Your task to perform on an android device: manage bookmarks in the chrome app Image 0: 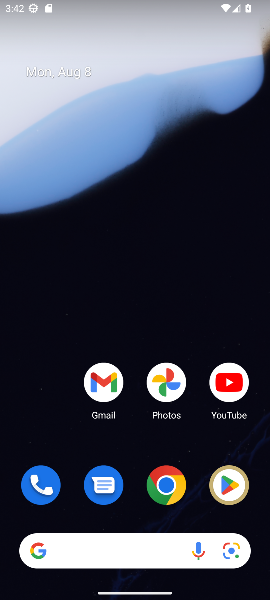
Step 0: drag from (21, 542) to (23, 175)
Your task to perform on an android device: manage bookmarks in the chrome app Image 1: 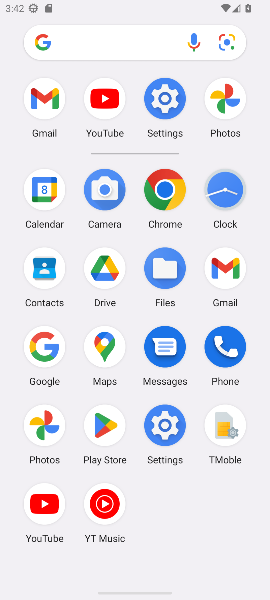
Step 1: drag from (123, 468) to (90, 239)
Your task to perform on an android device: manage bookmarks in the chrome app Image 2: 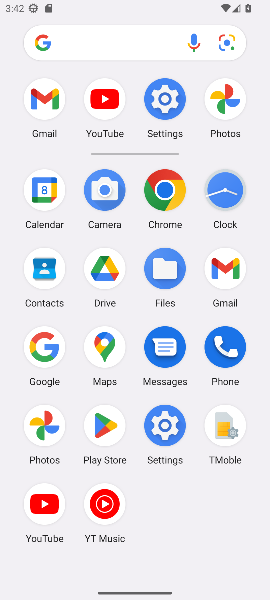
Step 2: click (169, 199)
Your task to perform on an android device: manage bookmarks in the chrome app Image 3: 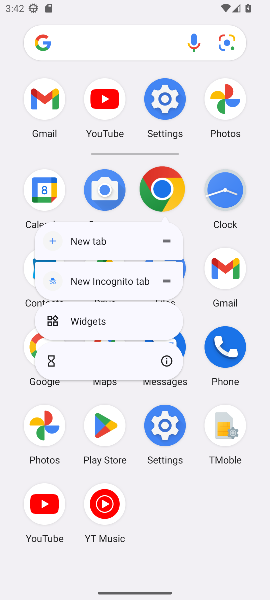
Step 3: click (166, 198)
Your task to perform on an android device: manage bookmarks in the chrome app Image 4: 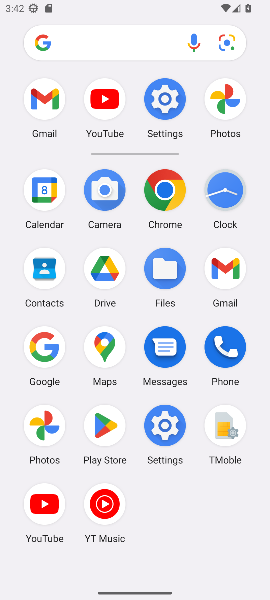
Step 4: click (162, 195)
Your task to perform on an android device: manage bookmarks in the chrome app Image 5: 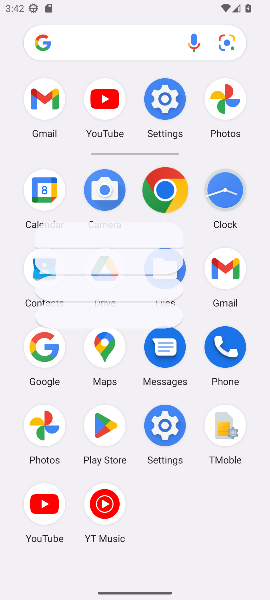
Step 5: click (162, 186)
Your task to perform on an android device: manage bookmarks in the chrome app Image 6: 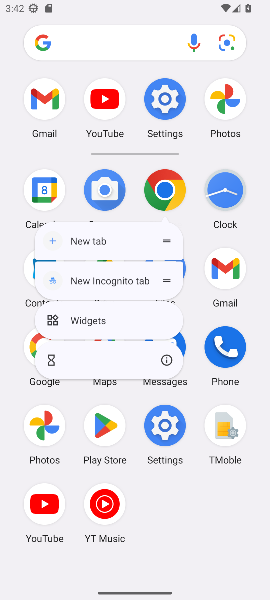
Step 6: click (165, 183)
Your task to perform on an android device: manage bookmarks in the chrome app Image 7: 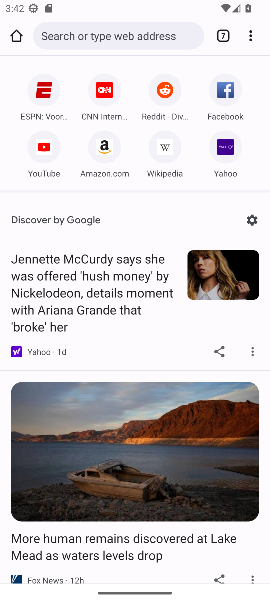
Step 7: click (240, 38)
Your task to perform on an android device: manage bookmarks in the chrome app Image 8: 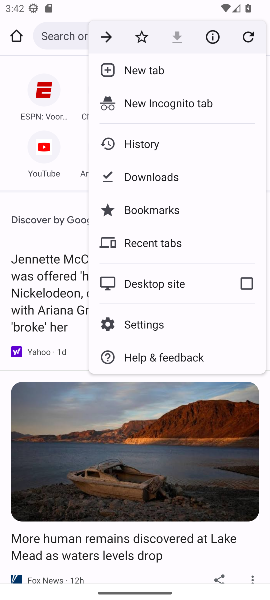
Step 8: click (135, 320)
Your task to perform on an android device: manage bookmarks in the chrome app Image 9: 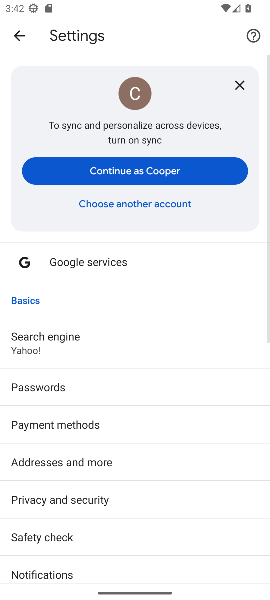
Step 9: click (22, 31)
Your task to perform on an android device: manage bookmarks in the chrome app Image 10: 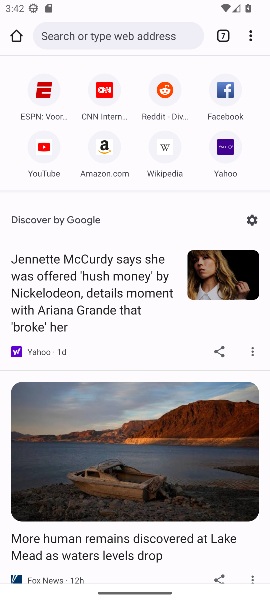
Step 10: click (246, 31)
Your task to perform on an android device: manage bookmarks in the chrome app Image 11: 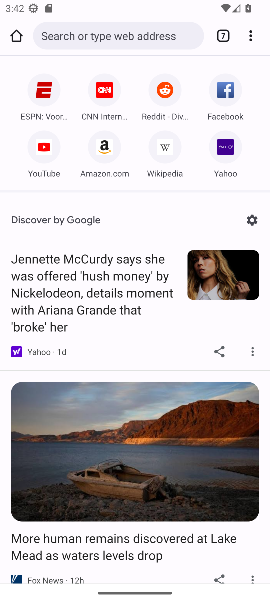
Step 11: drag from (243, 37) to (127, 321)
Your task to perform on an android device: manage bookmarks in the chrome app Image 12: 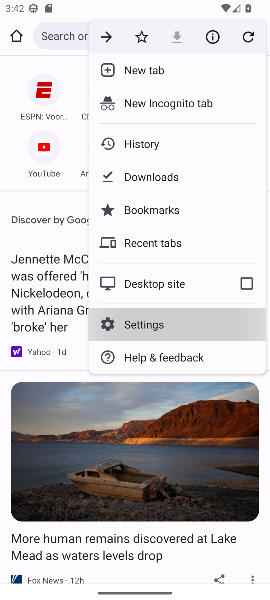
Step 12: click (126, 323)
Your task to perform on an android device: manage bookmarks in the chrome app Image 13: 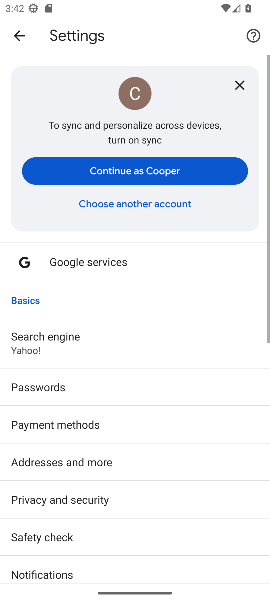
Step 13: click (16, 32)
Your task to perform on an android device: manage bookmarks in the chrome app Image 14: 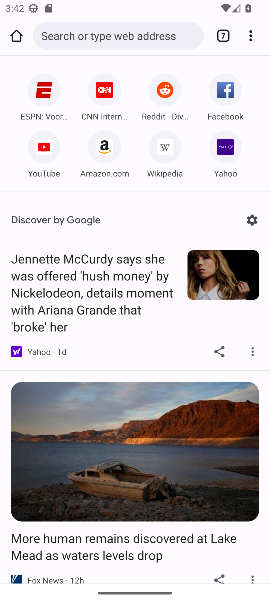
Step 14: click (248, 31)
Your task to perform on an android device: manage bookmarks in the chrome app Image 15: 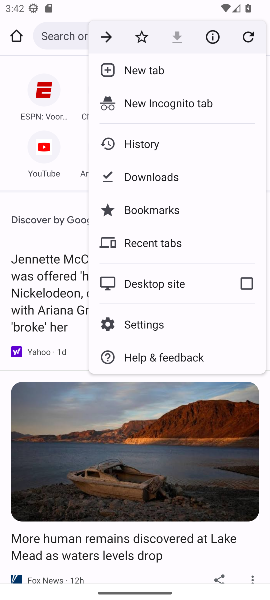
Step 15: click (141, 208)
Your task to perform on an android device: manage bookmarks in the chrome app Image 16: 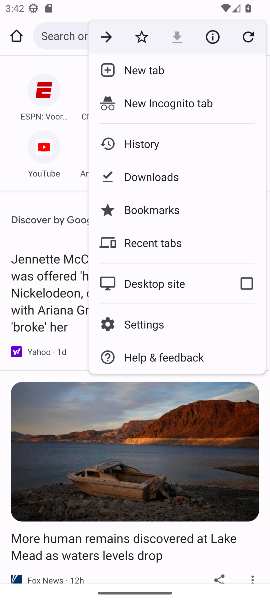
Step 16: click (143, 208)
Your task to perform on an android device: manage bookmarks in the chrome app Image 17: 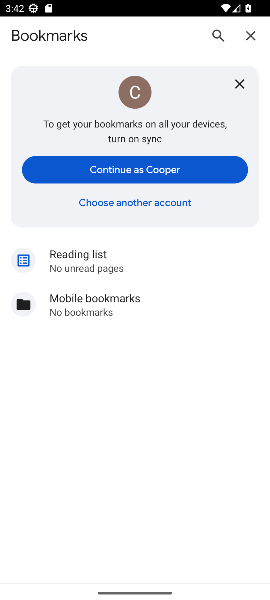
Step 17: click (233, 81)
Your task to perform on an android device: manage bookmarks in the chrome app Image 18: 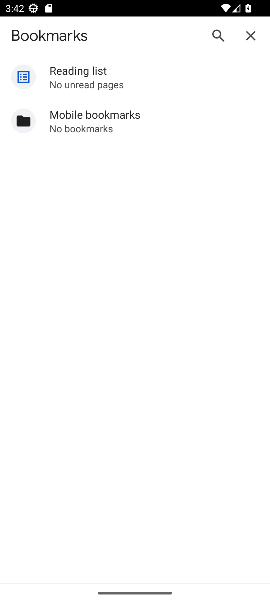
Step 18: task complete